Your task to perform on an android device: Open Android settings Image 0: 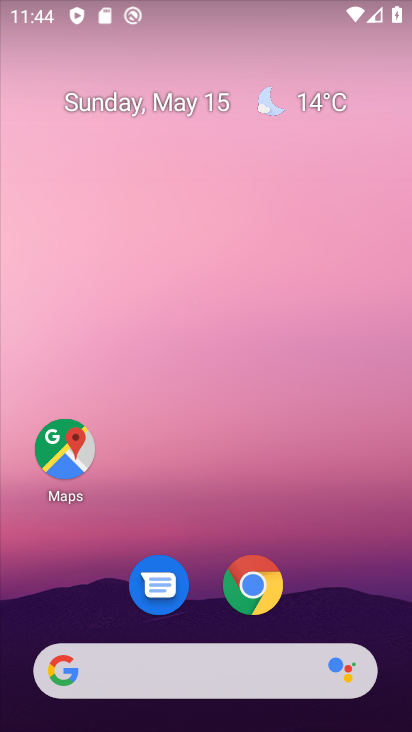
Step 0: drag from (213, 512) to (203, 38)
Your task to perform on an android device: Open Android settings Image 1: 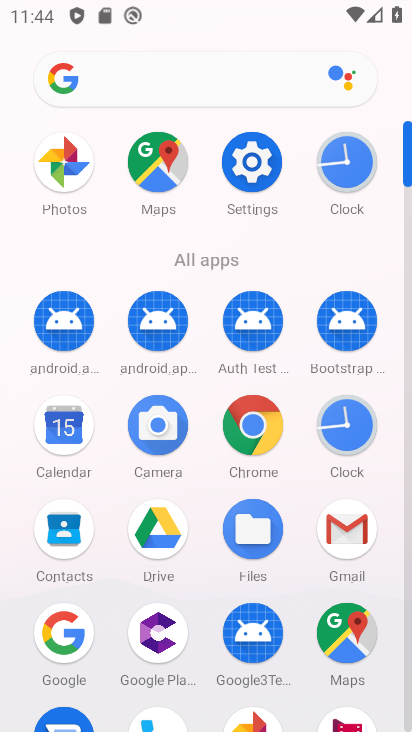
Step 1: click (251, 173)
Your task to perform on an android device: Open Android settings Image 2: 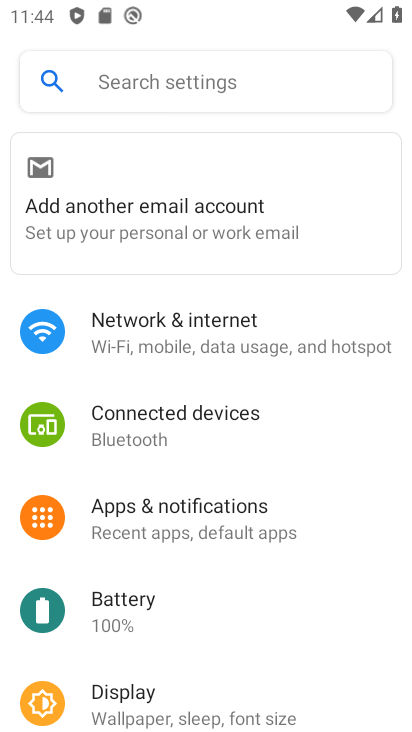
Step 2: drag from (269, 652) to (241, 79)
Your task to perform on an android device: Open Android settings Image 3: 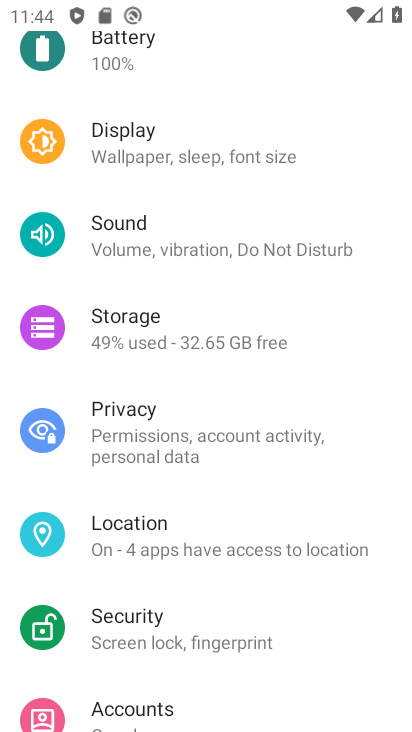
Step 3: drag from (234, 581) to (225, 72)
Your task to perform on an android device: Open Android settings Image 4: 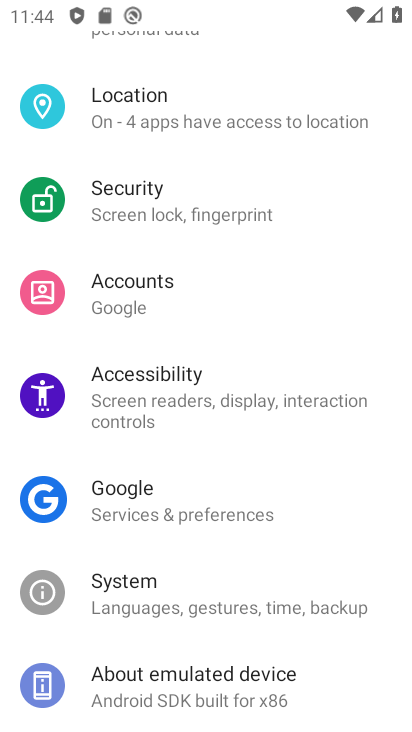
Step 4: click (218, 673)
Your task to perform on an android device: Open Android settings Image 5: 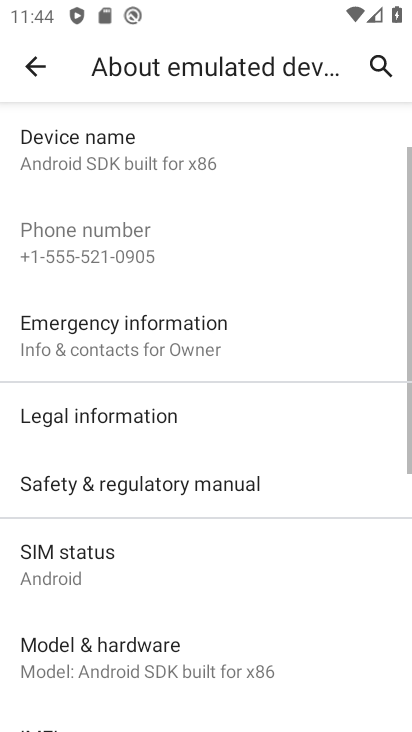
Step 5: task complete